Your task to perform on an android device: turn on wifi Image 0: 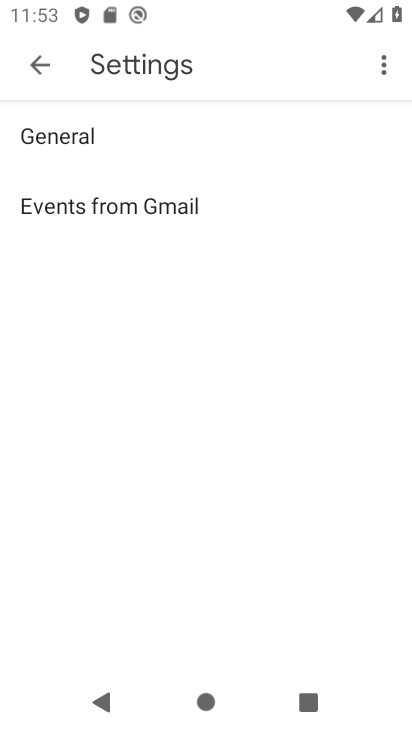
Step 0: press home button
Your task to perform on an android device: turn on wifi Image 1: 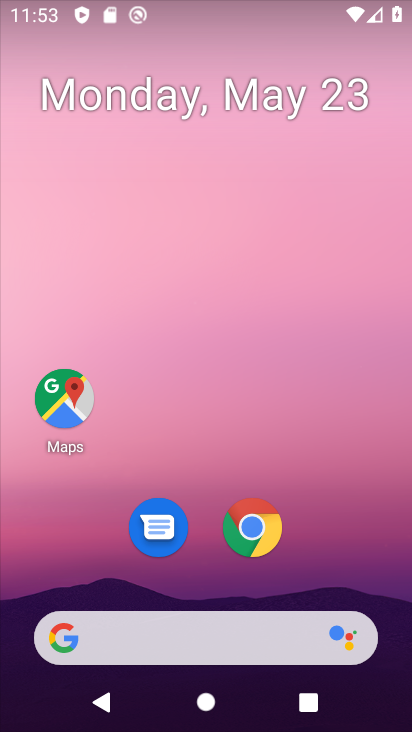
Step 1: drag from (171, 638) to (282, 154)
Your task to perform on an android device: turn on wifi Image 2: 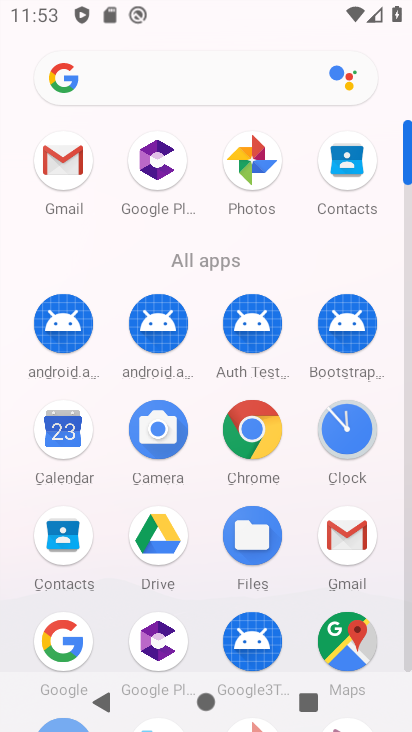
Step 2: drag from (214, 594) to (328, 171)
Your task to perform on an android device: turn on wifi Image 3: 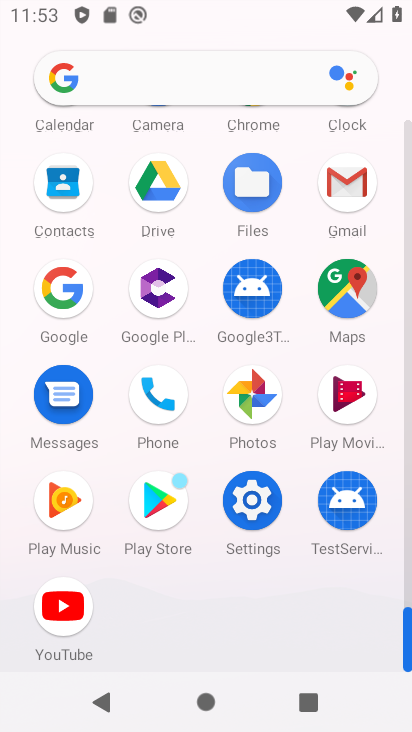
Step 3: click (249, 514)
Your task to perform on an android device: turn on wifi Image 4: 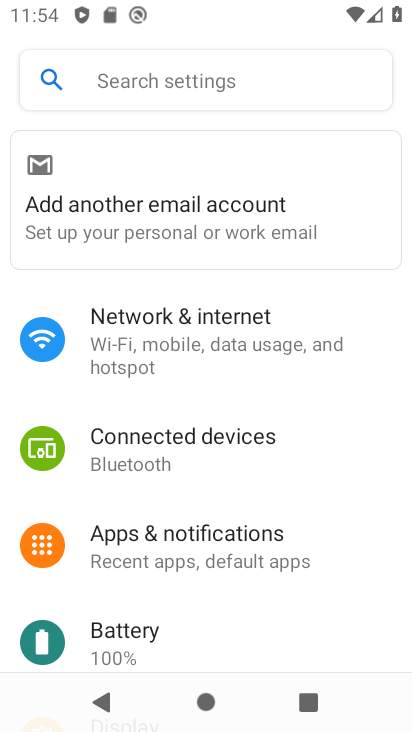
Step 4: click (214, 328)
Your task to perform on an android device: turn on wifi Image 5: 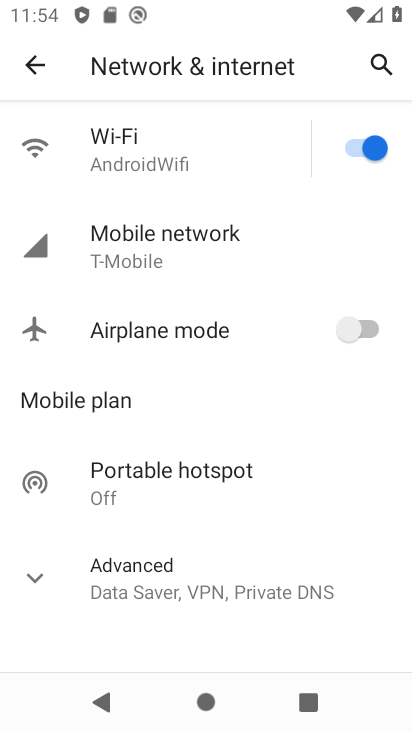
Step 5: task complete